Your task to perform on an android device: turn on sleep mode Image 0: 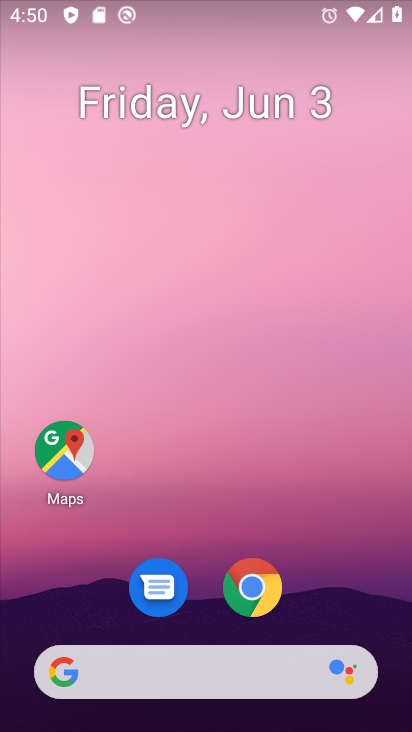
Step 0: drag from (204, 9) to (178, 612)
Your task to perform on an android device: turn on sleep mode Image 1: 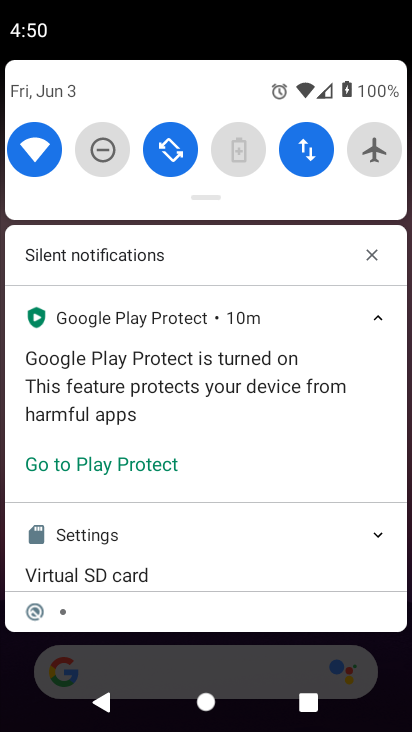
Step 1: drag from (201, 201) to (178, 613)
Your task to perform on an android device: turn on sleep mode Image 2: 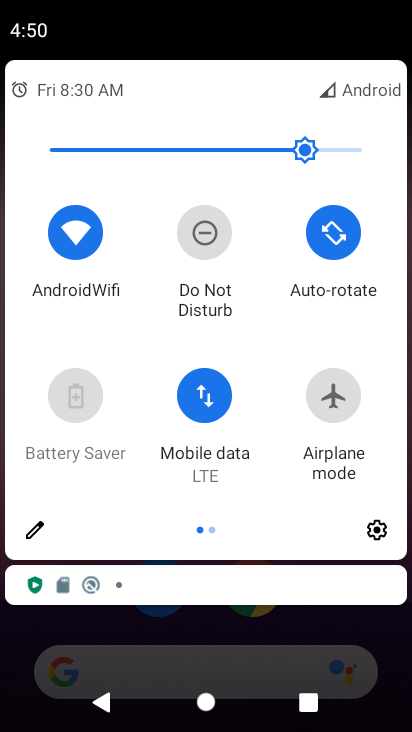
Step 2: drag from (304, 492) to (37, 493)
Your task to perform on an android device: turn on sleep mode Image 3: 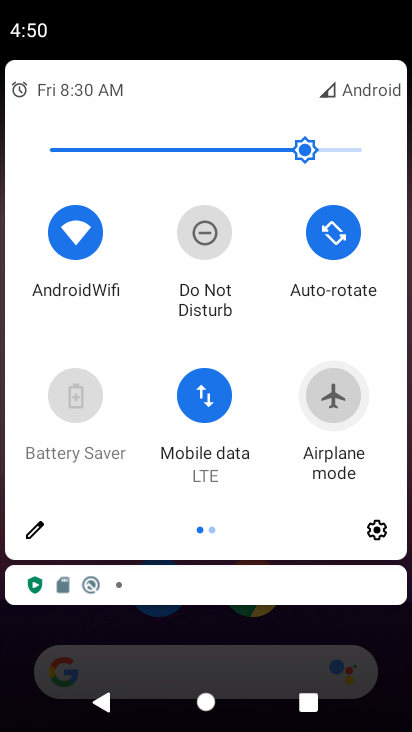
Step 3: click (45, 540)
Your task to perform on an android device: turn on sleep mode Image 4: 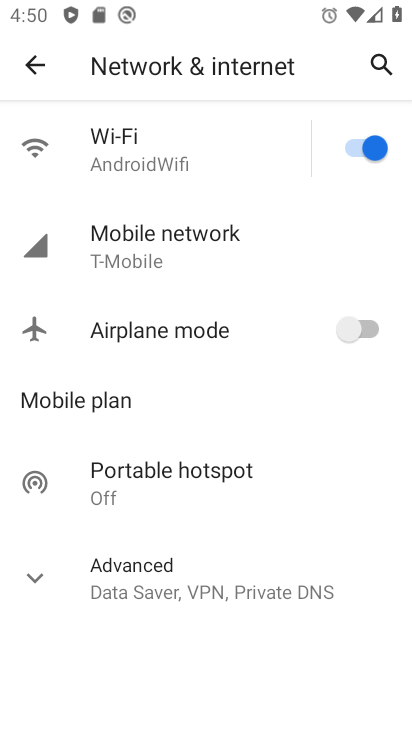
Step 4: task complete